Your task to perform on an android device: star an email in the gmail app Image 0: 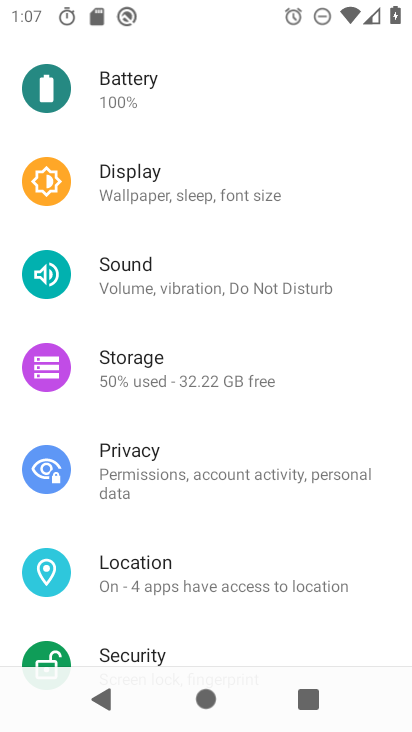
Step 0: press home button
Your task to perform on an android device: star an email in the gmail app Image 1: 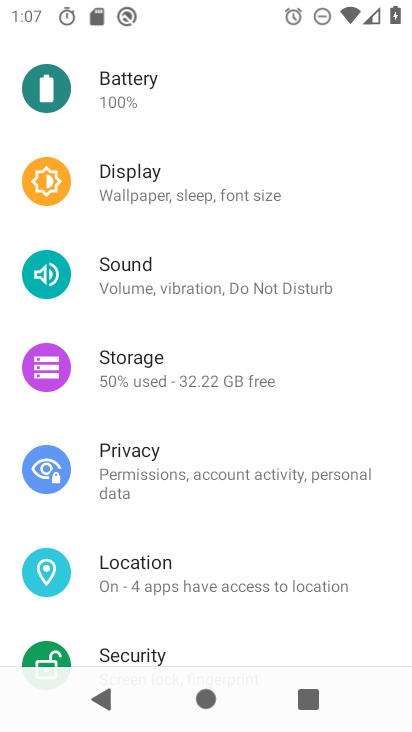
Step 1: press home button
Your task to perform on an android device: star an email in the gmail app Image 2: 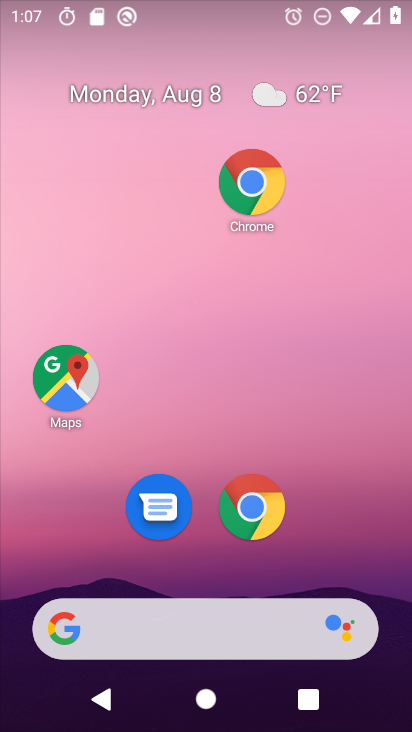
Step 2: drag from (331, 529) to (324, 18)
Your task to perform on an android device: star an email in the gmail app Image 3: 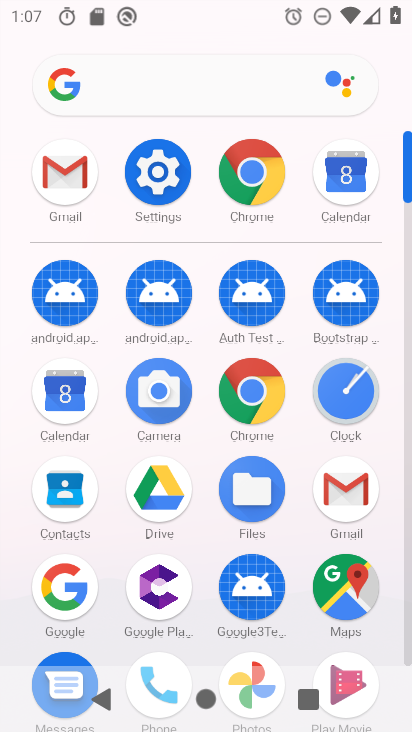
Step 3: click (60, 173)
Your task to perform on an android device: star an email in the gmail app Image 4: 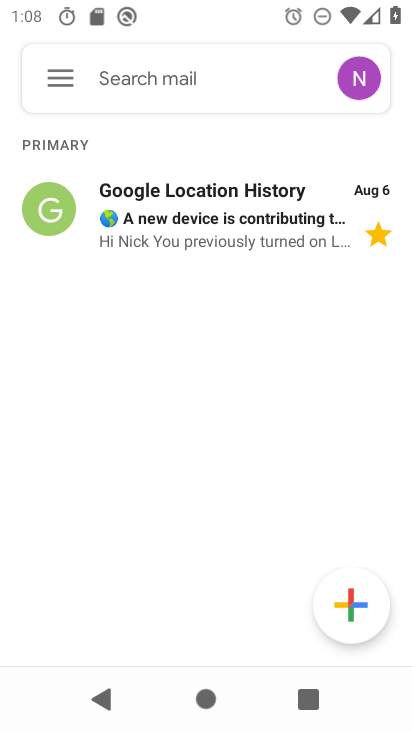
Step 4: click (52, 77)
Your task to perform on an android device: star an email in the gmail app Image 5: 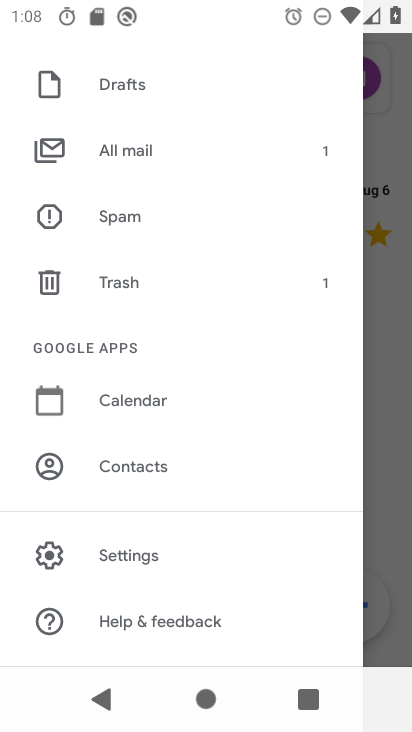
Step 5: click (153, 153)
Your task to perform on an android device: star an email in the gmail app Image 6: 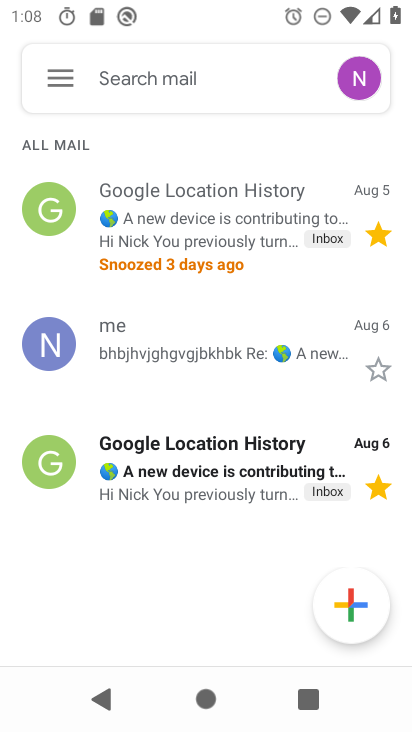
Step 6: click (367, 367)
Your task to perform on an android device: star an email in the gmail app Image 7: 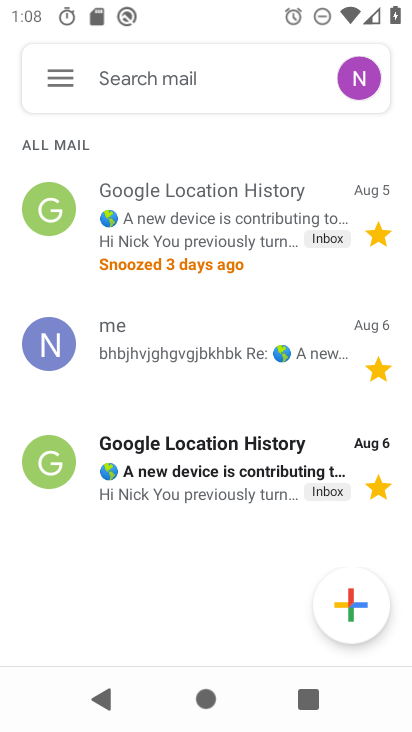
Step 7: task complete